Your task to perform on an android device: open app "Expedia: Hotels, Flights & Car" Image 0: 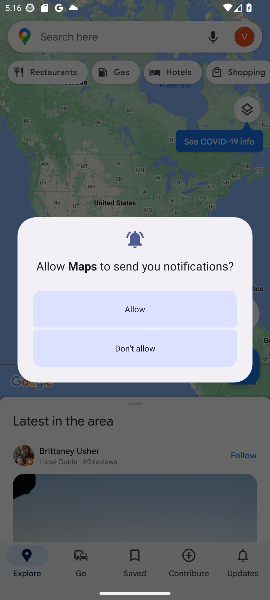
Step 0: press home button
Your task to perform on an android device: open app "Expedia: Hotels, Flights & Car" Image 1: 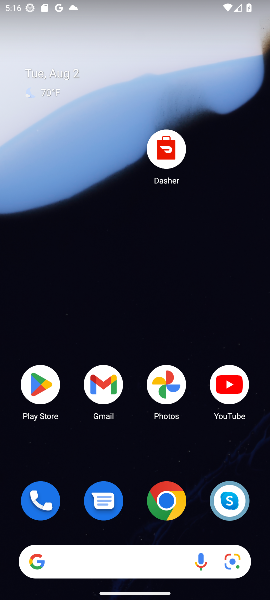
Step 1: click (47, 389)
Your task to perform on an android device: open app "Expedia: Hotels, Flights & Car" Image 2: 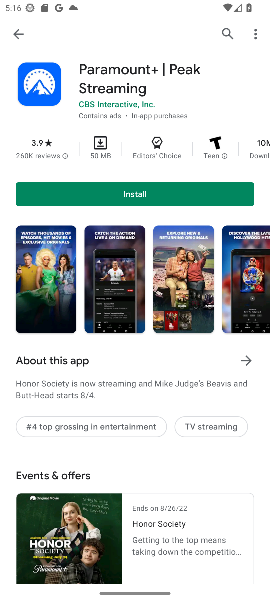
Step 2: click (223, 38)
Your task to perform on an android device: open app "Expedia: Hotels, Flights & Car" Image 3: 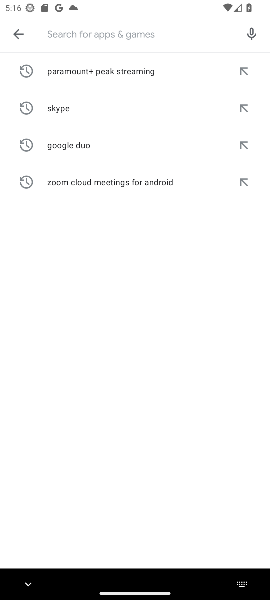
Step 3: type "Expedia: Hotels, Flights & Car"
Your task to perform on an android device: open app "Expedia: Hotels, Flights & Car" Image 4: 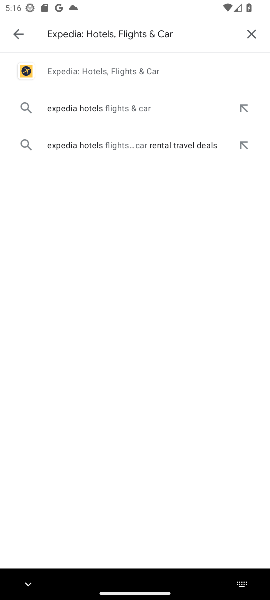
Step 4: click (101, 67)
Your task to perform on an android device: open app "Expedia: Hotels, Flights & Car" Image 5: 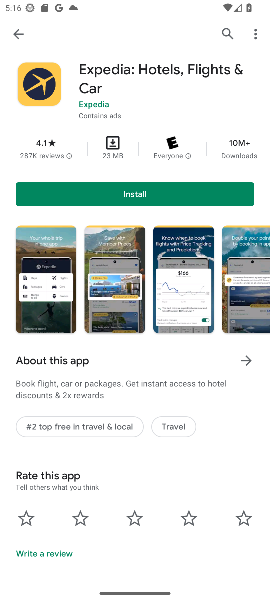
Step 5: task complete